Your task to perform on an android device: open device folders in google photos Image 0: 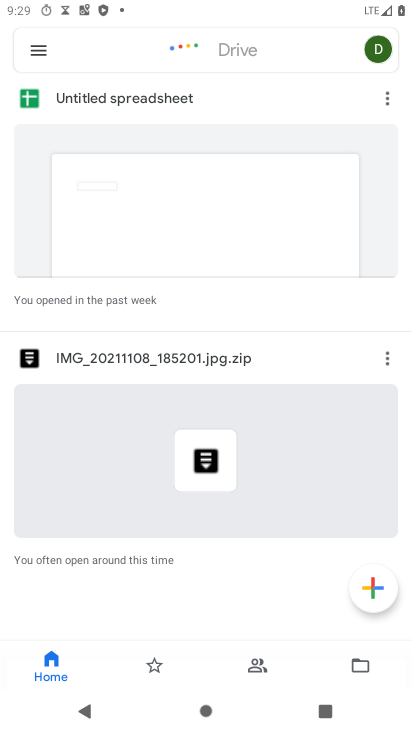
Step 0: press back button
Your task to perform on an android device: open device folders in google photos Image 1: 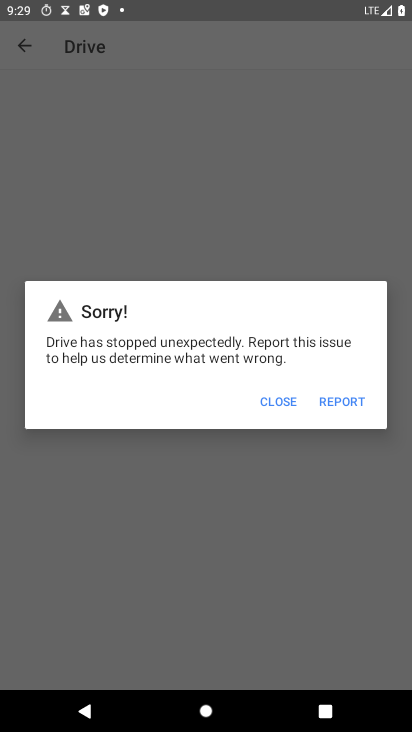
Step 1: press back button
Your task to perform on an android device: open device folders in google photos Image 2: 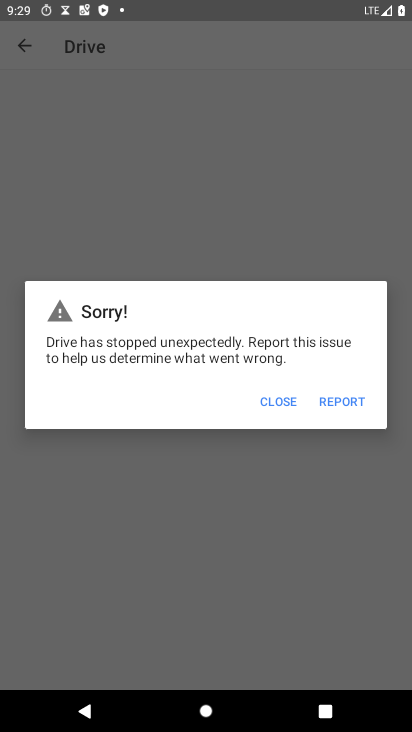
Step 2: press home button
Your task to perform on an android device: open device folders in google photos Image 3: 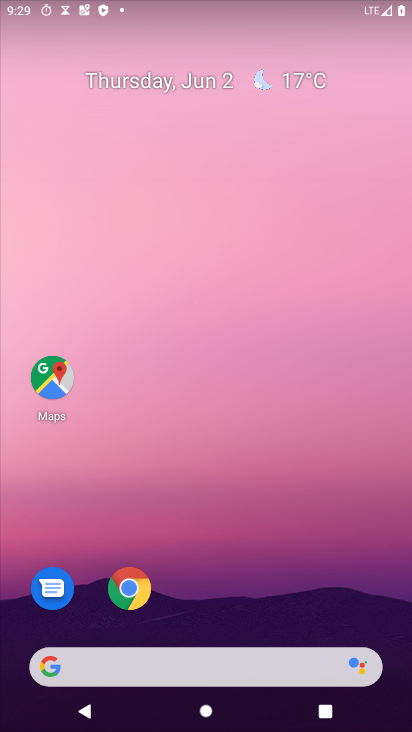
Step 3: drag from (234, 589) to (310, 37)
Your task to perform on an android device: open device folders in google photos Image 4: 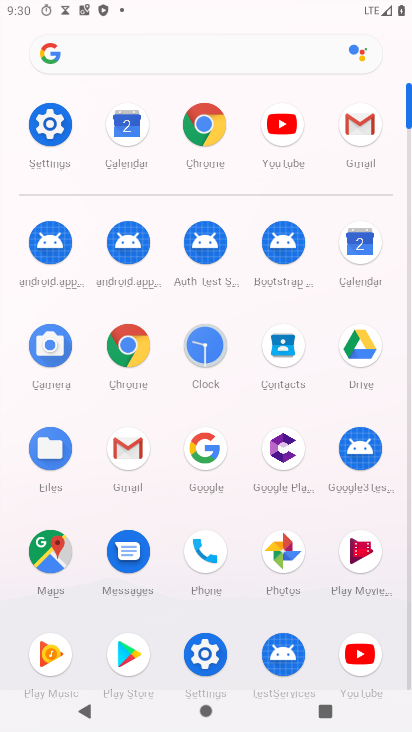
Step 4: click (274, 562)
Your task to perform on an android device: open device folders in google photos Image 5: 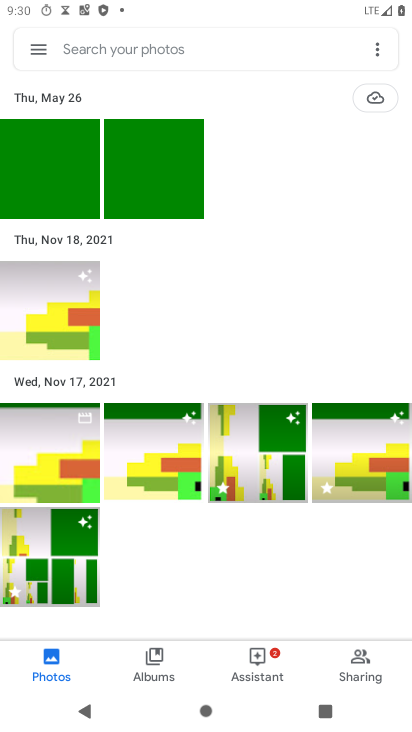
Step 5: click (50, 663)
Your task to perform on an android device: open device folders in google photos Image 6: 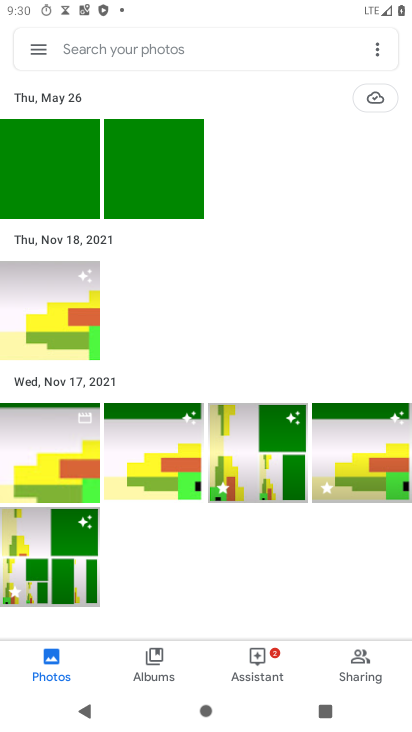
Step 6: click (30, 45)
Your task to perform on an android device: open device folders in google photos Image 7: 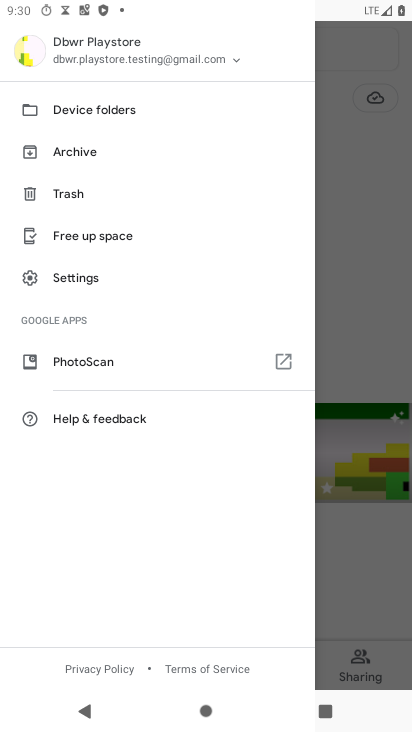
Step 7: click (100, 110)
Your task to perform on an android device: open device folders in google photos Image 8: 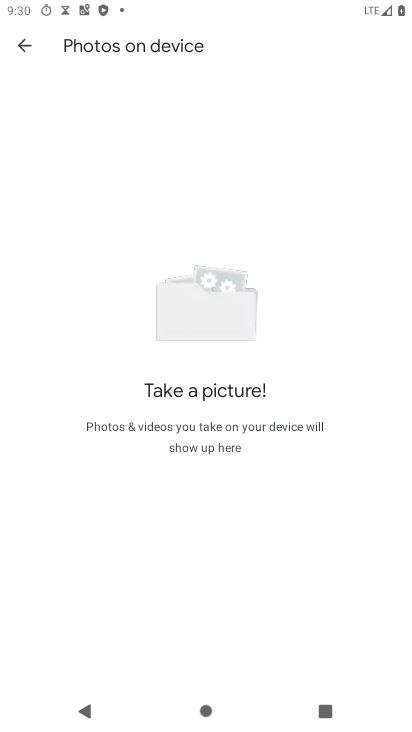
Step 8: task complete